Your task to perform on an android device: toggle location history Image 0: 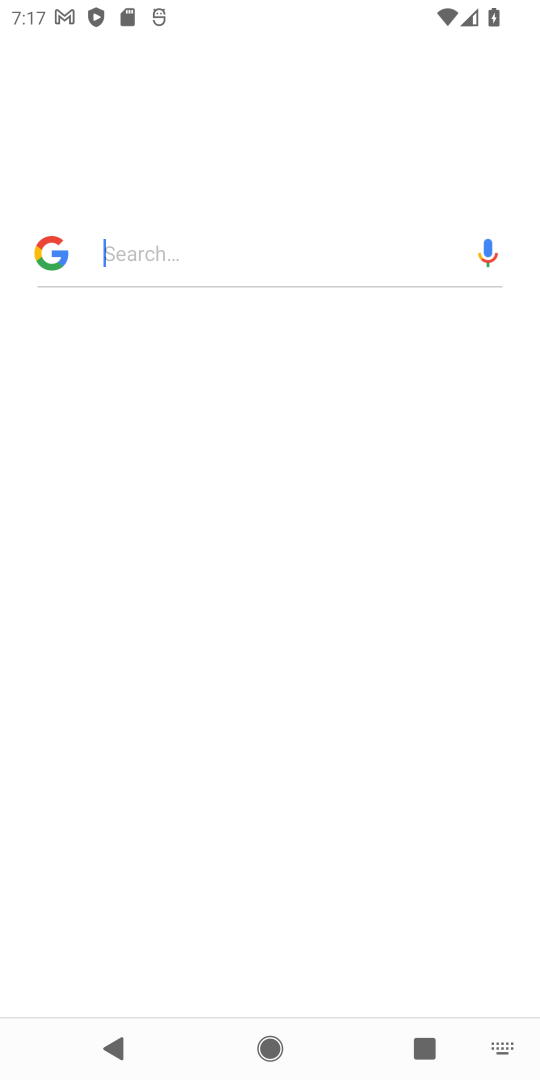
Step 0: press home button
Your task to perform on an android device: toggle location history Image 1: 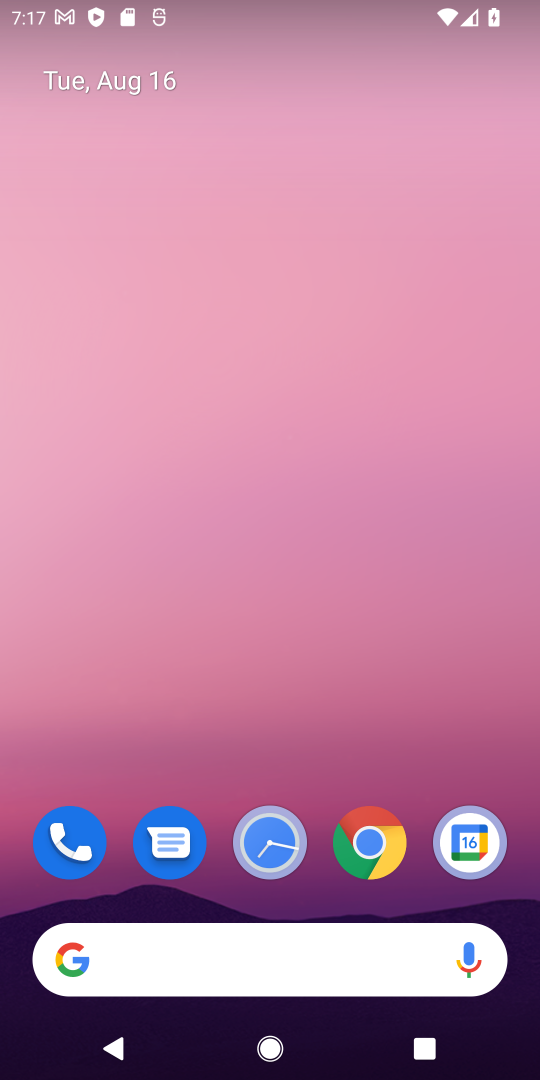
Step 1: drag from (317, 797) to (325, 7)
Your task to perform on an android device: toggle location history Image 2: 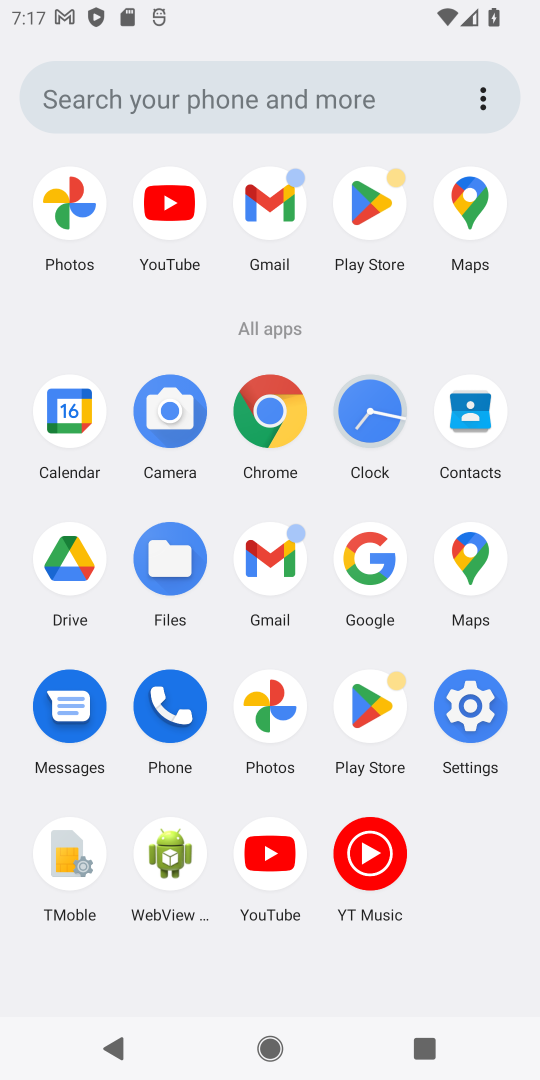
Step 2: click (463, 691)
Your task to perform on an android device: toggle location history Image 3: 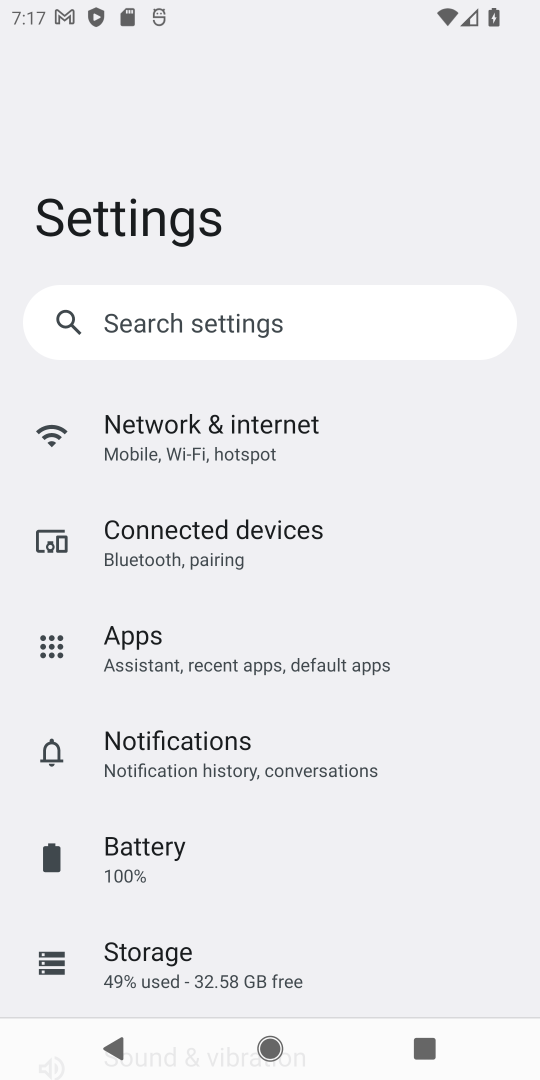
Step 3: drag from (222, 937) to (247, 96)
Your task to perform on an android device: toggle location history Image 4: 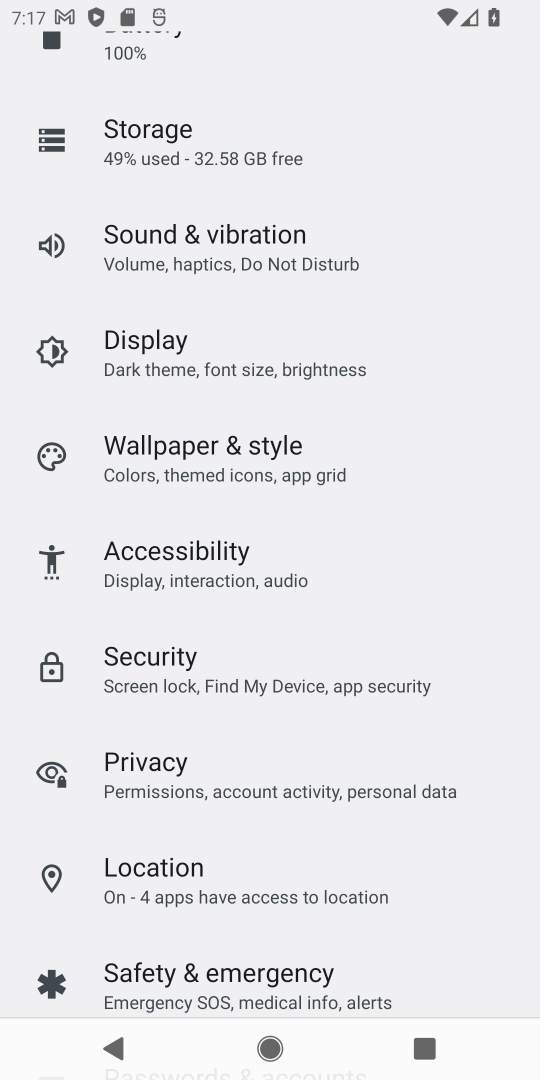
Step 4: drag from (262, 901) to (268, 418)
Your task to perform on an android device: toggle location history Image 5: 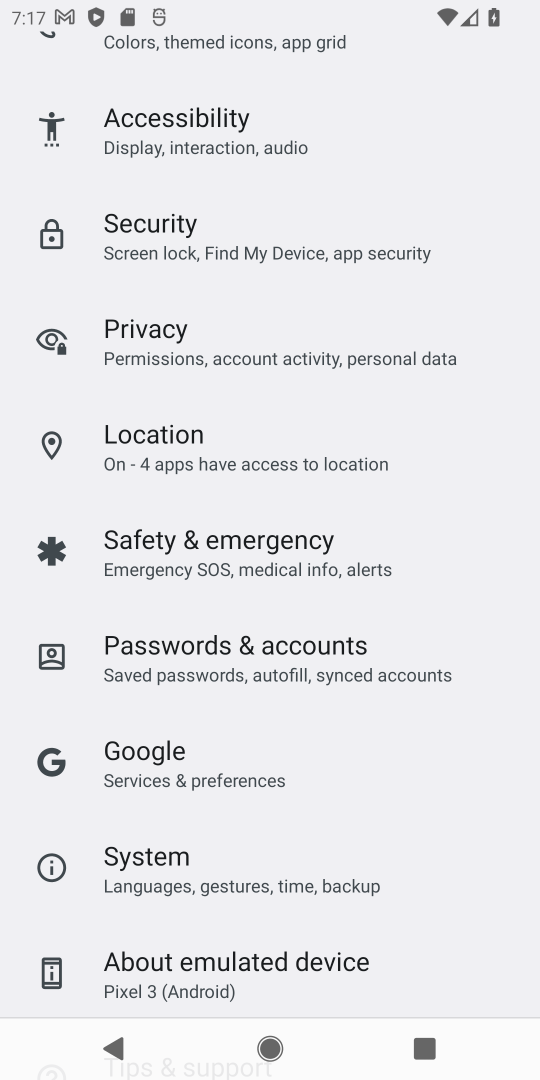
Step 5: click (220, 433)
Your task to perform on an android device: toggle location history Image 6: 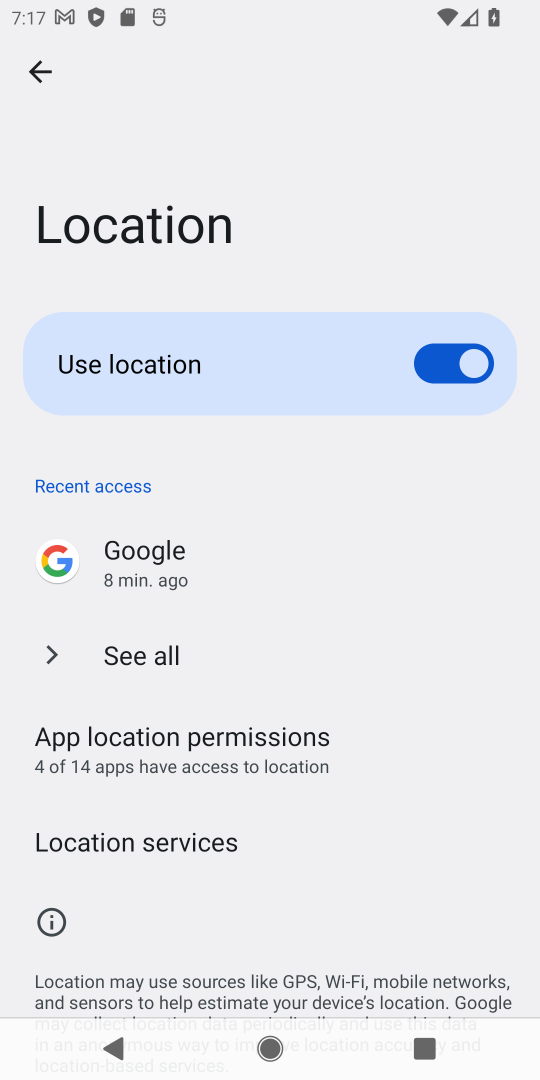
Step 6: click (235, 839)
Your task to perform on an android device: toggle location history Image 7: 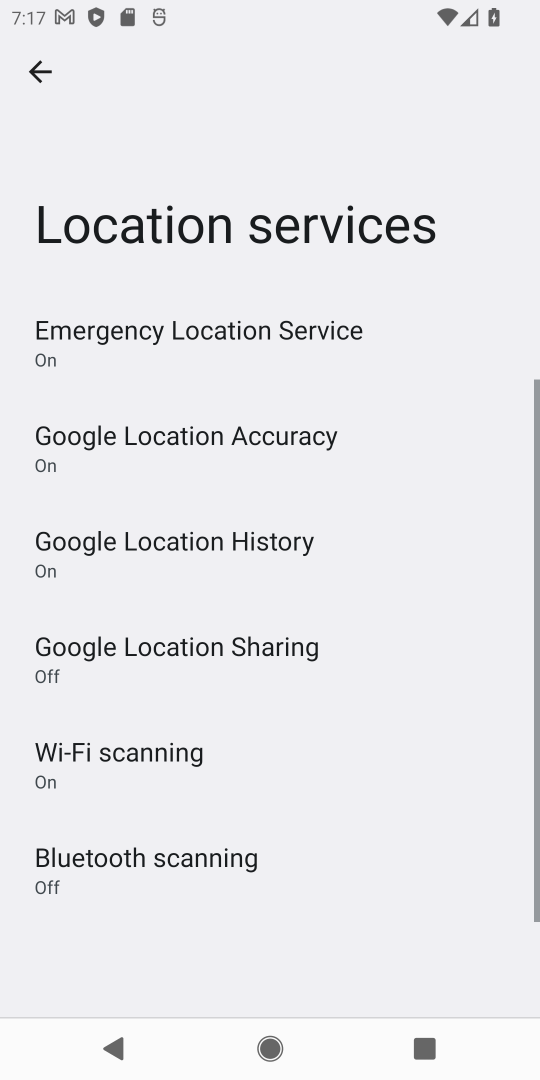
Step 7: click (330, 541)
Your task to perform on an android device: toggle location history Image 8: 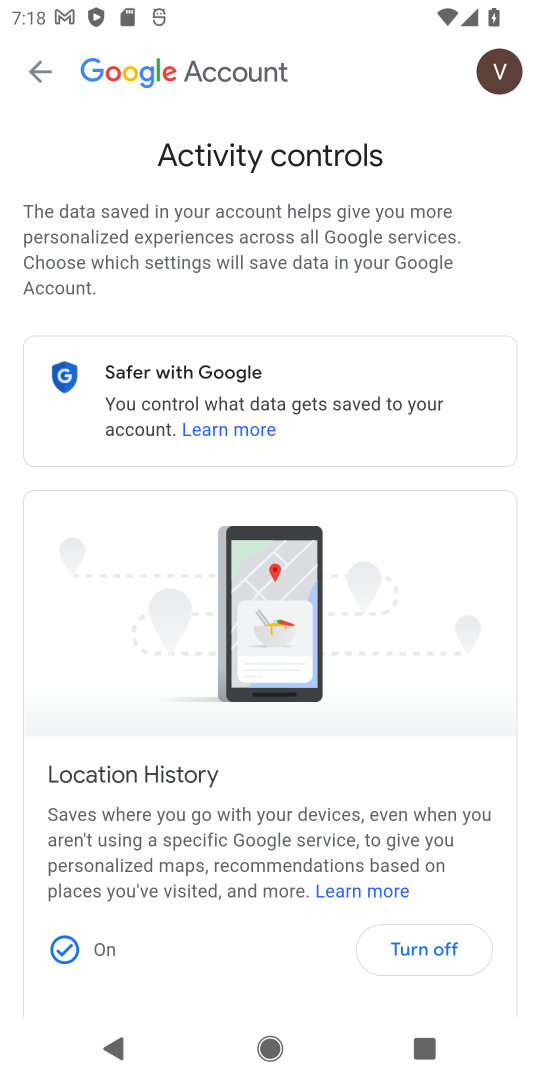
Step 8: click (430, 950)
Your task to perform on an android device: toggle location history Image 9: 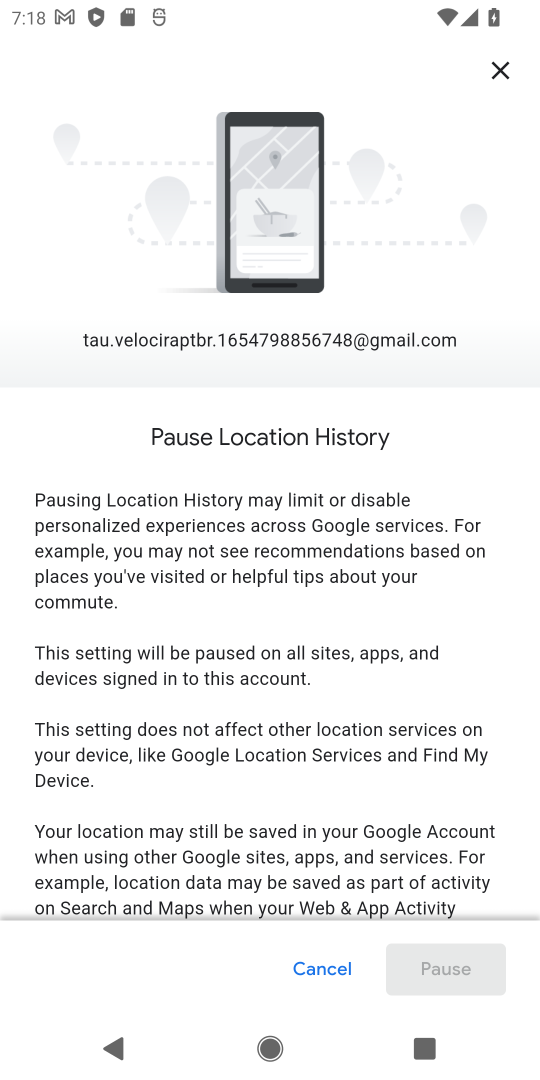
Step 9: drag from (324, 851) to (326, 112)
Your task to perform on an android device: toggle location history Image 10: 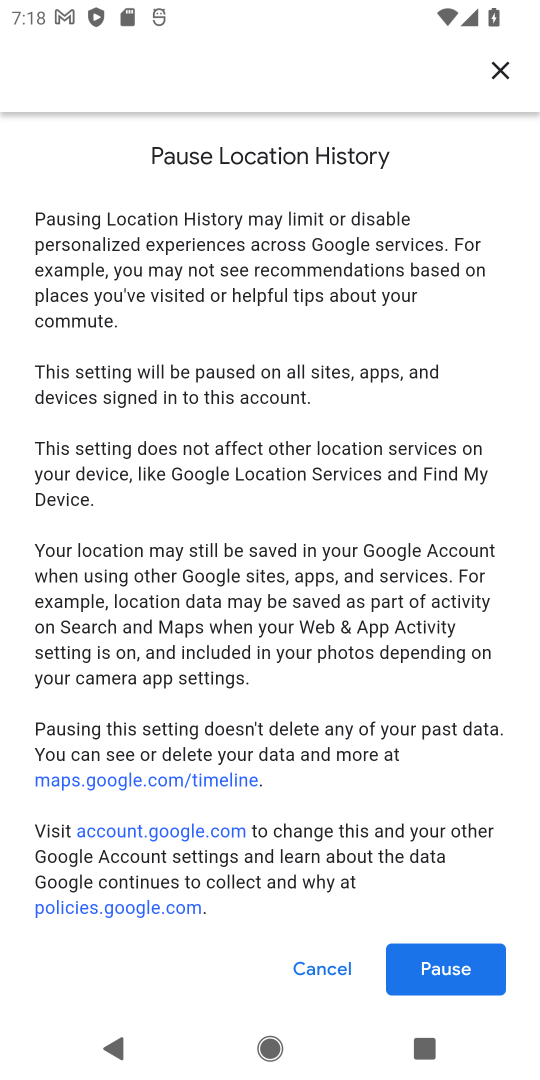
Step 10: drag from (331, 864) to (346, 272)
Your task to perform on an android device: toggle location history Image 11: 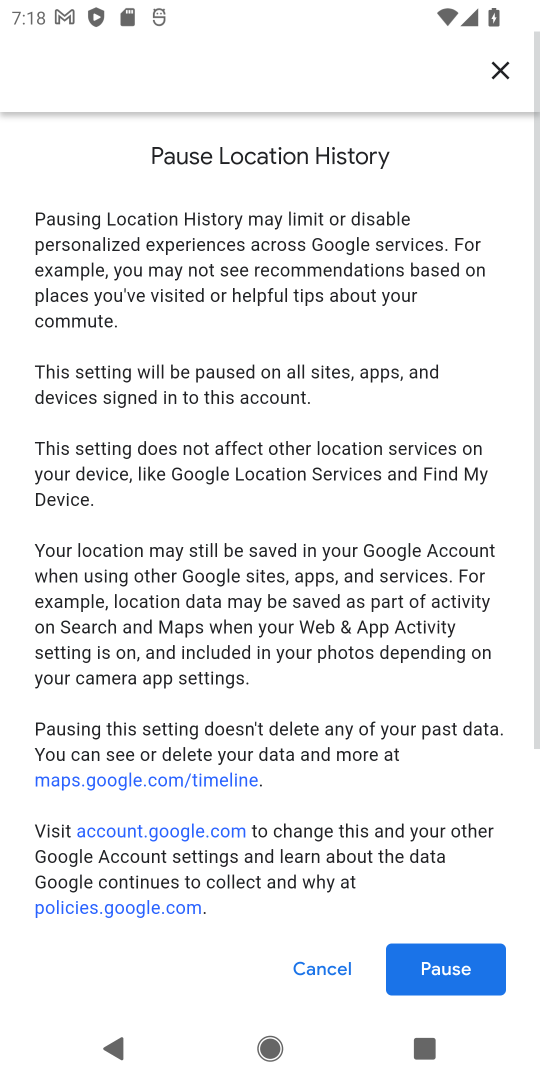
Step 11: click (448, 971)
Your task to perform on an android device: toggle location history Image 12: 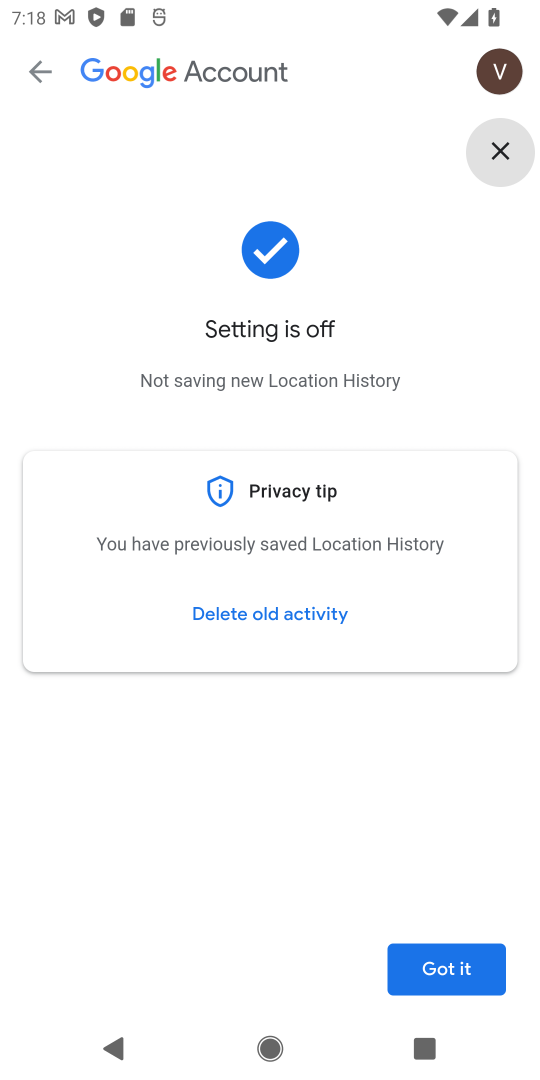
Step 12: click (456, 967)
Your task to perform on an android device: toggle location history Image 13: 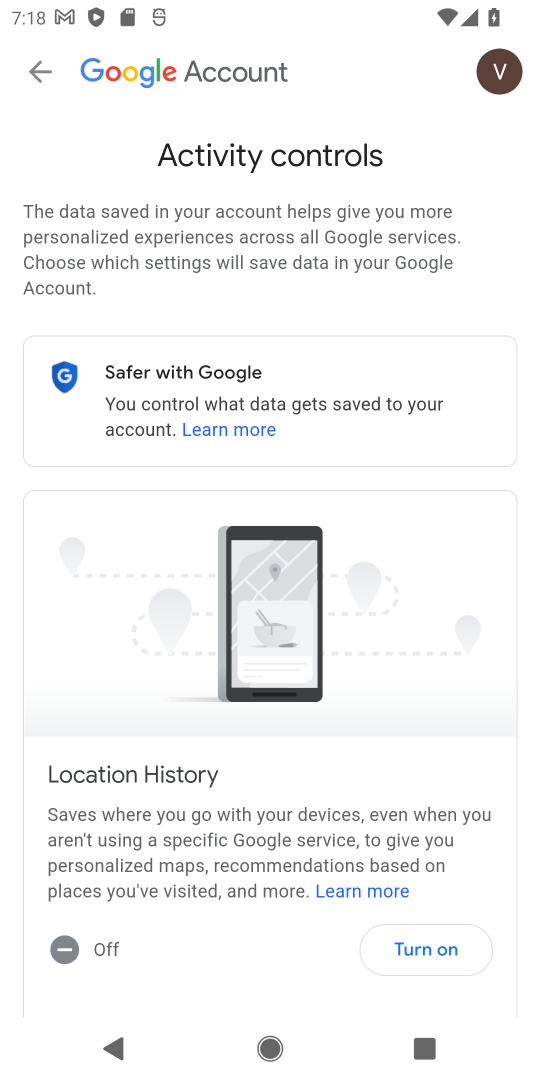
Step 13: task complete